Your task to perform on an android device: find snoozed emails in the gmail app Image 0: 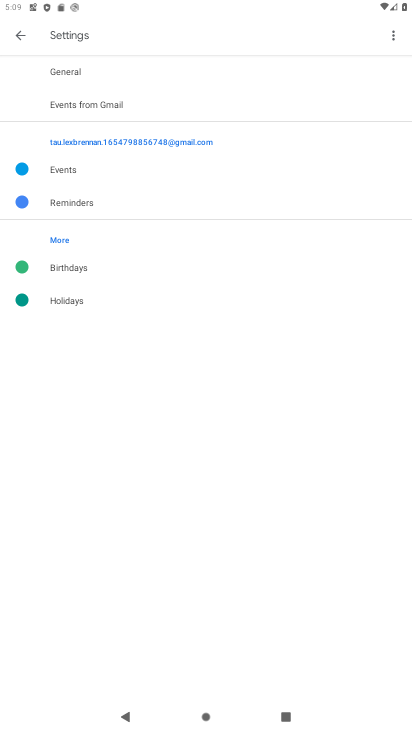
Step 0: press home button
Your task to perform on an android device: find snoozed emails in the gmail app Image 1: 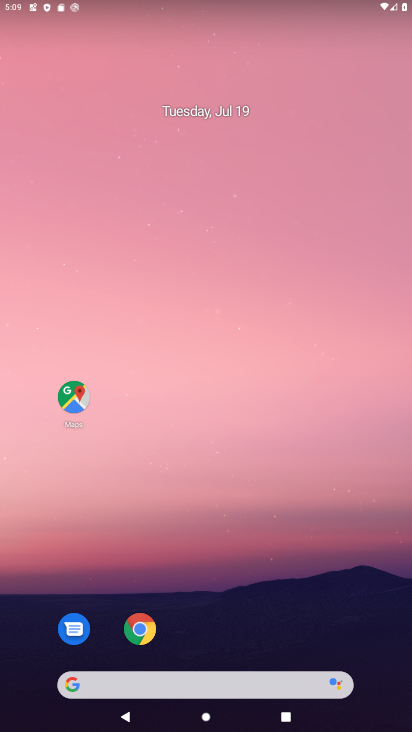
Step 1: drag from (221, 643) to (177, 114)
Your task to perform on an android device: find snoozed emails in the gmail app Image 2: 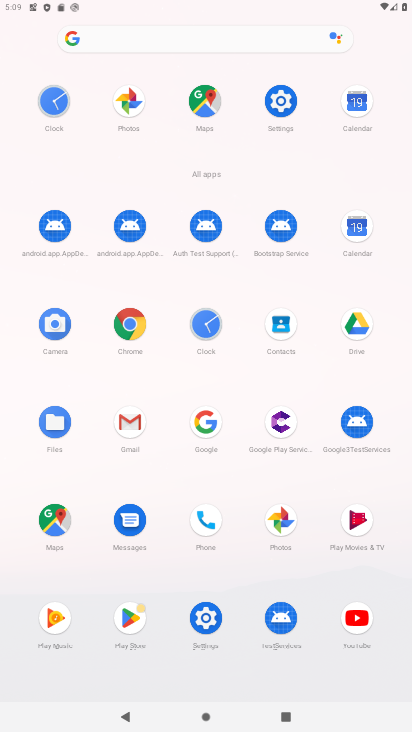
Step 2: click (132, 428)
Your task to perform on an android device: find snoozed emails in the gmail app Image 3: 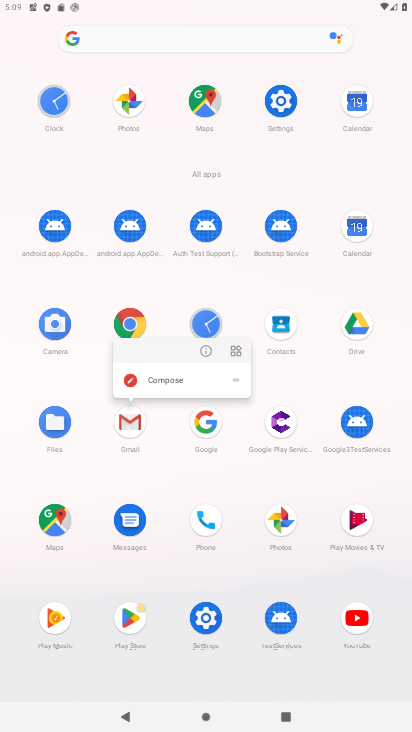
Step 3: click (129, 416)
Your task to perform on an android device: find snoozed emails in the gmail app Image 4: 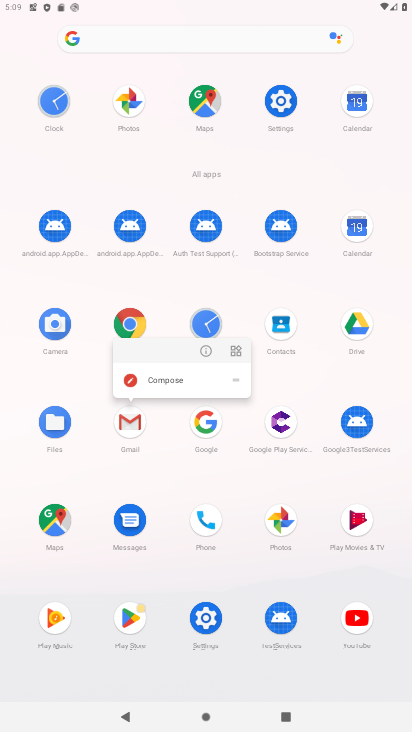
Step 4: click (129, 420)
Your task to perform on an android device: find snoozed emails in the gmail app Image 5: 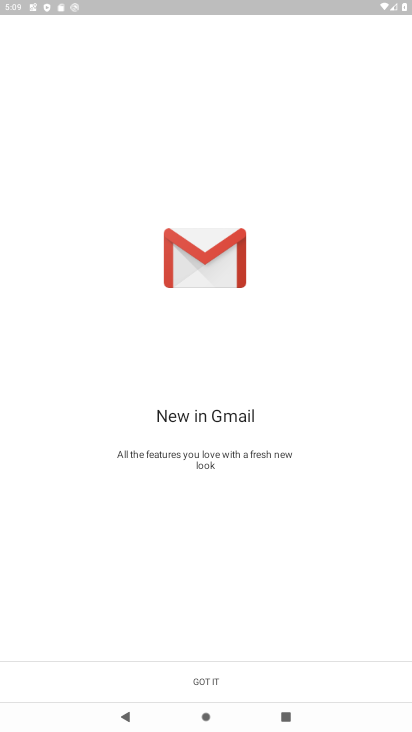
Step 5: click (207, 675)
Your task to perform on an android device: find snoozed emails in the gmail app Image 6: 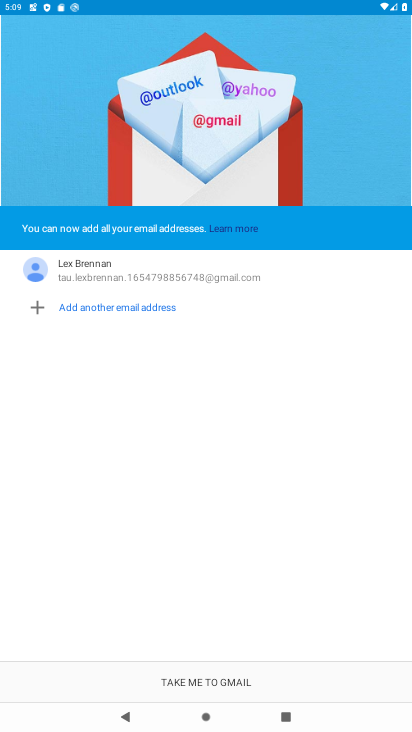
Step 6: click (207, 675)
Your task to perform on an android device: find snoozed emails in the gmail app Image 7: 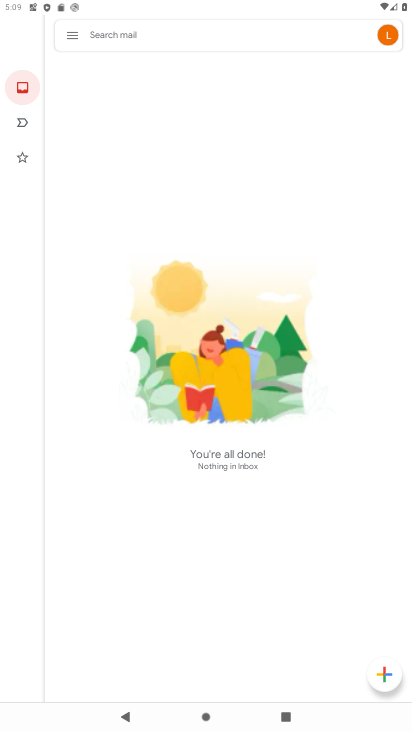
Step 7: click (72, 36)
Your task to perform on an android device: find snoozed emails in the gmail app Image 8: 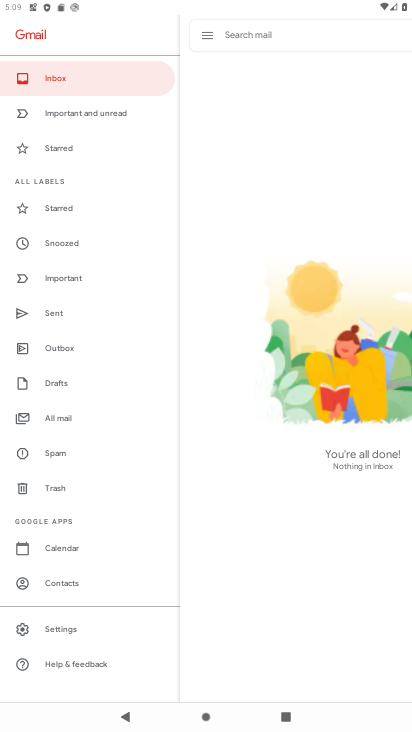
Step 8: click (62, 241)
Your task to perform on an android device: find snoozed emails in the gmail app Image 9: 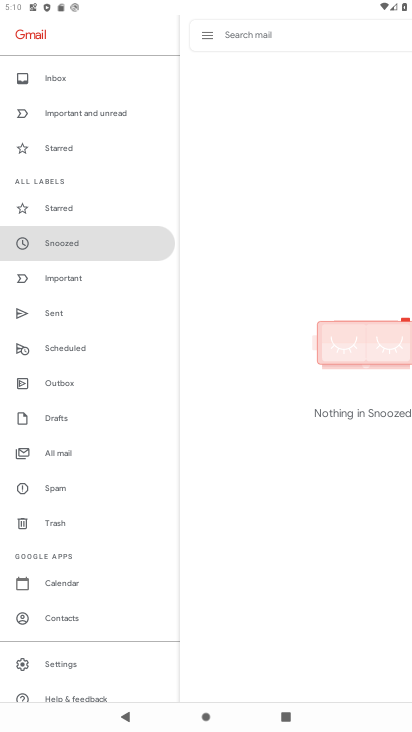
Step 9: task complete